Your task to perform on an android device: turn off location history Image 0: 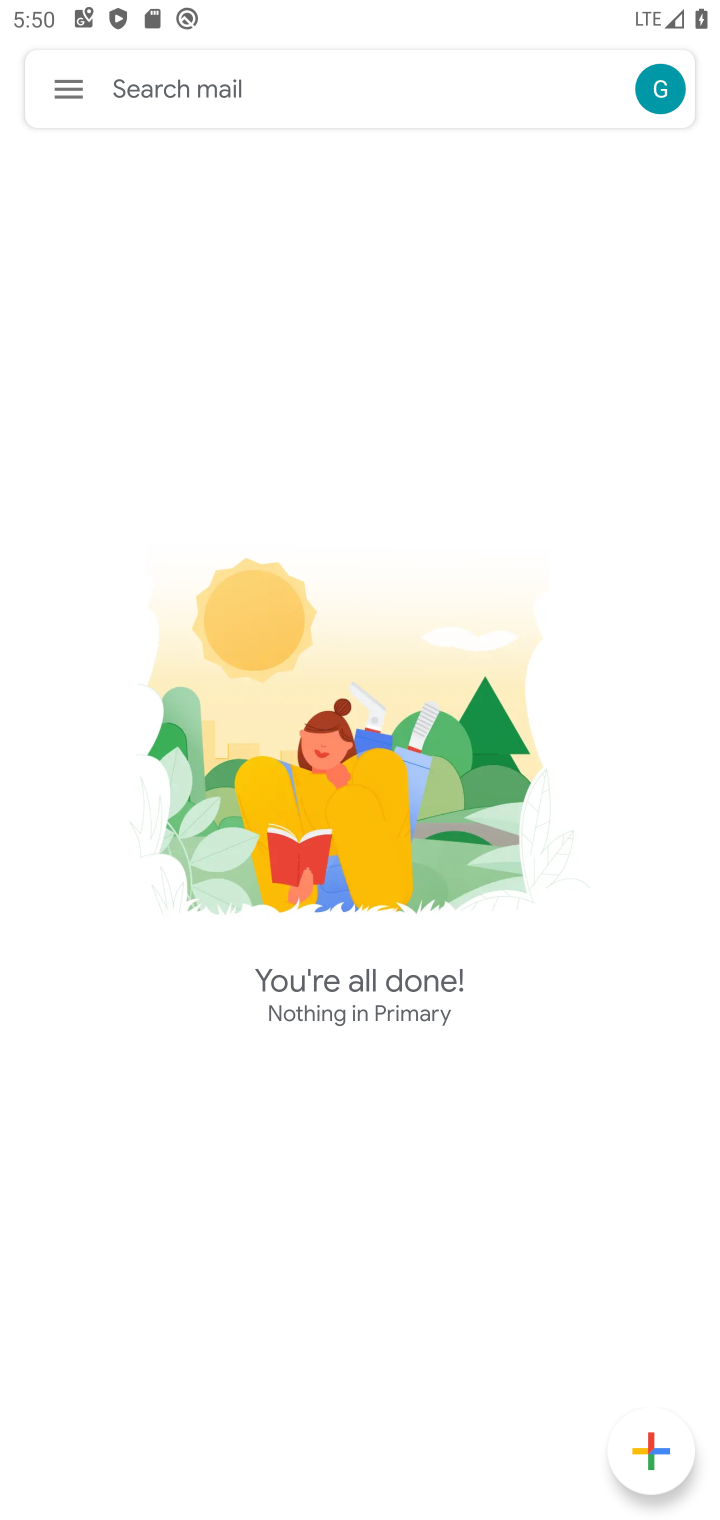
Step 0: press back button
Your task to perform on an android device: turn off location history Image 1: 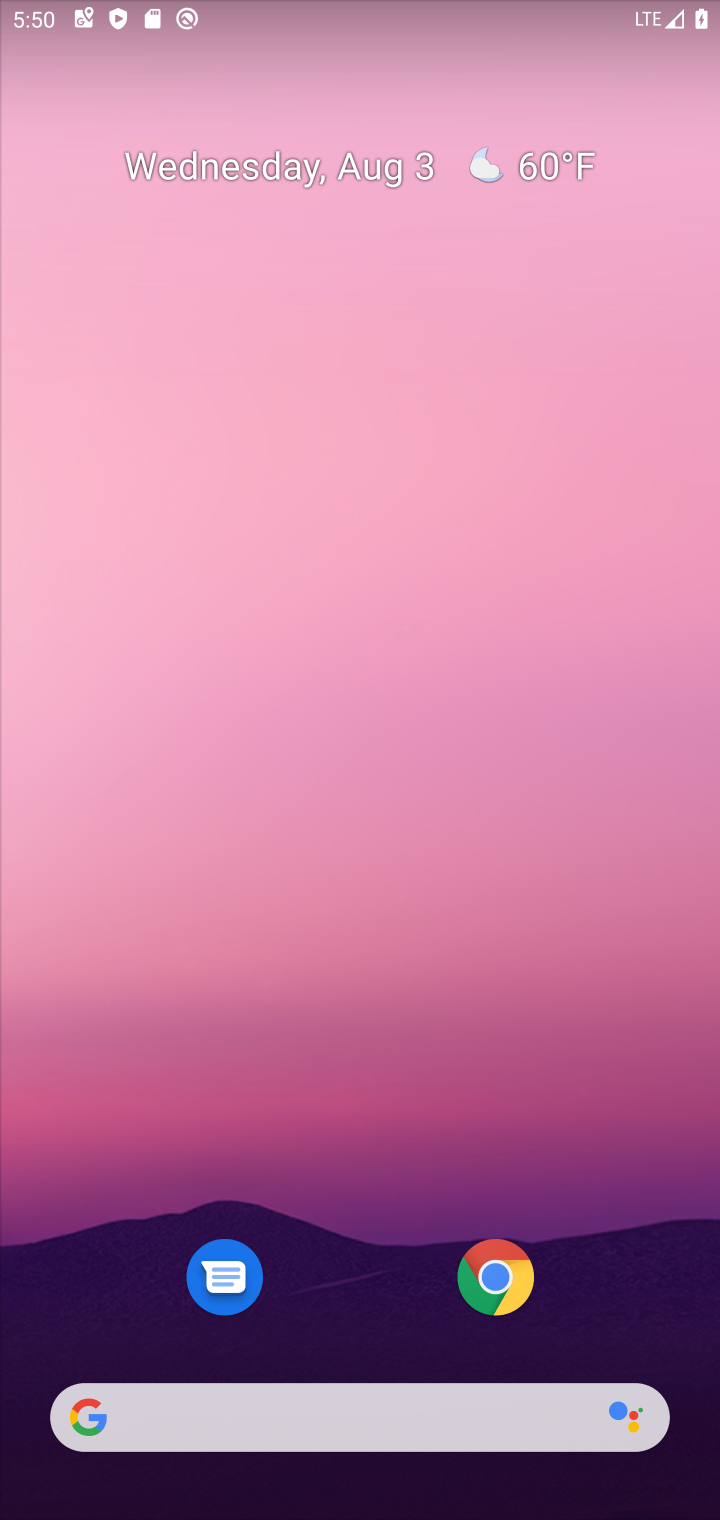
Step 1: drag from (400, 1049) to (490, 86)
Your task to perform on an android device: turn off location history Image 2: 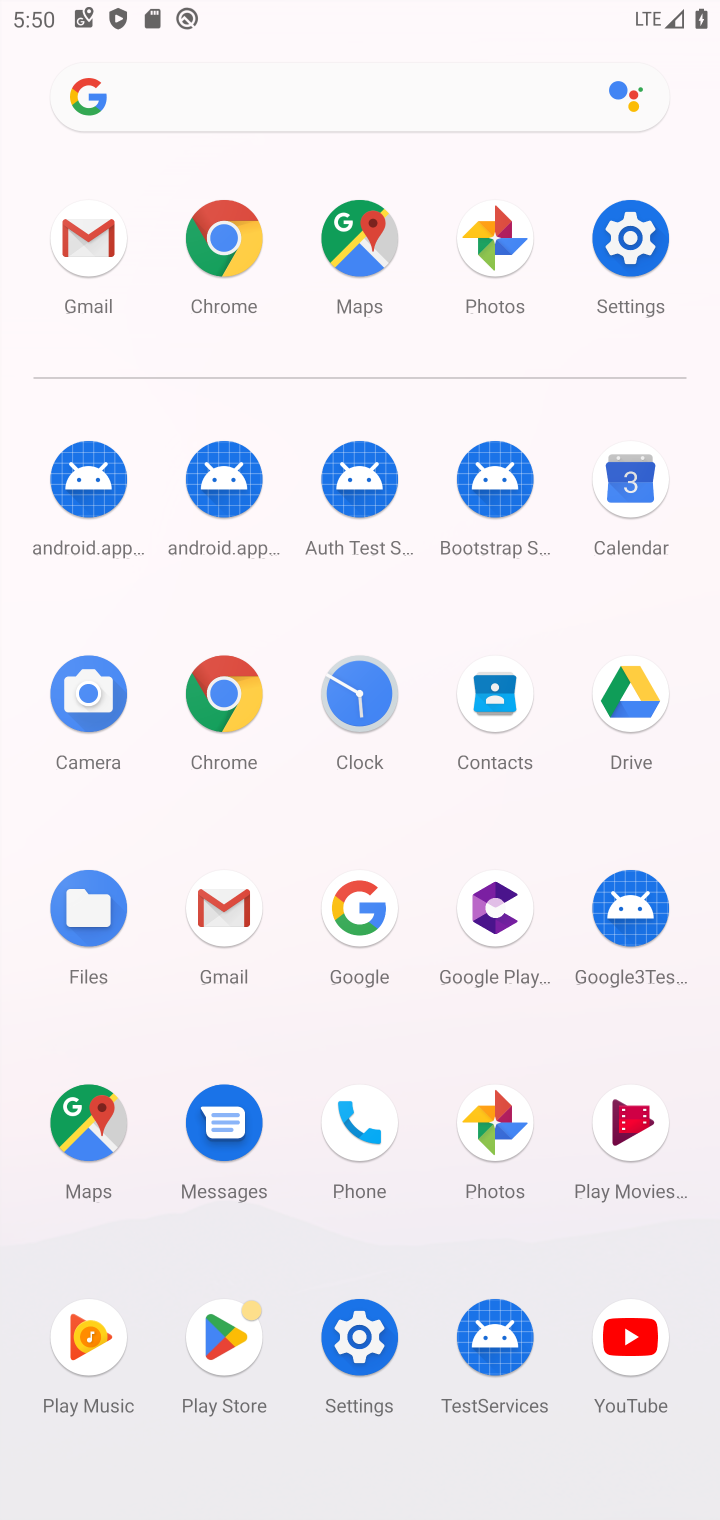
Step 2: click (621, 228)
Your task to perform on an android device: turn off location history Image 3: 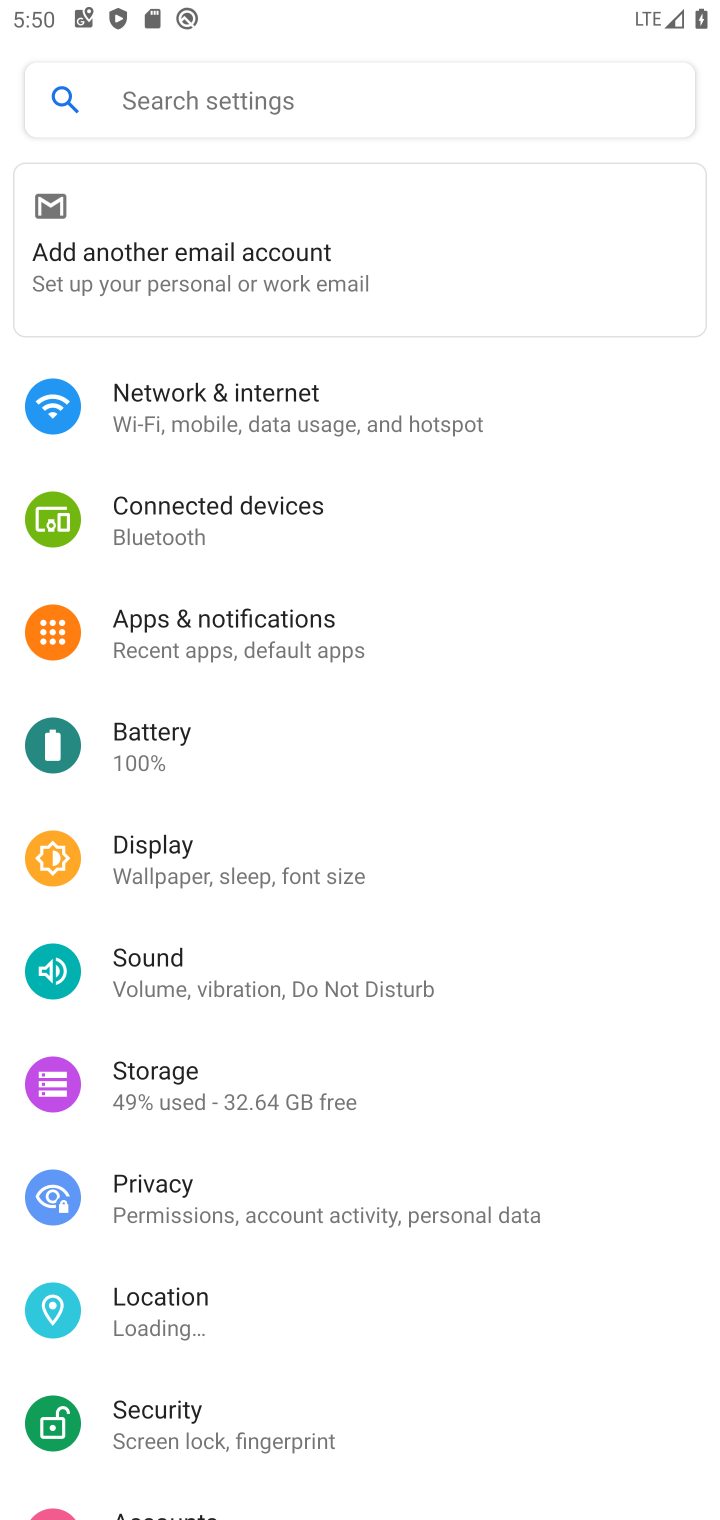
Step 3: click (154, 1311)
Your task to perform on an android device: turn off location history Image 4: 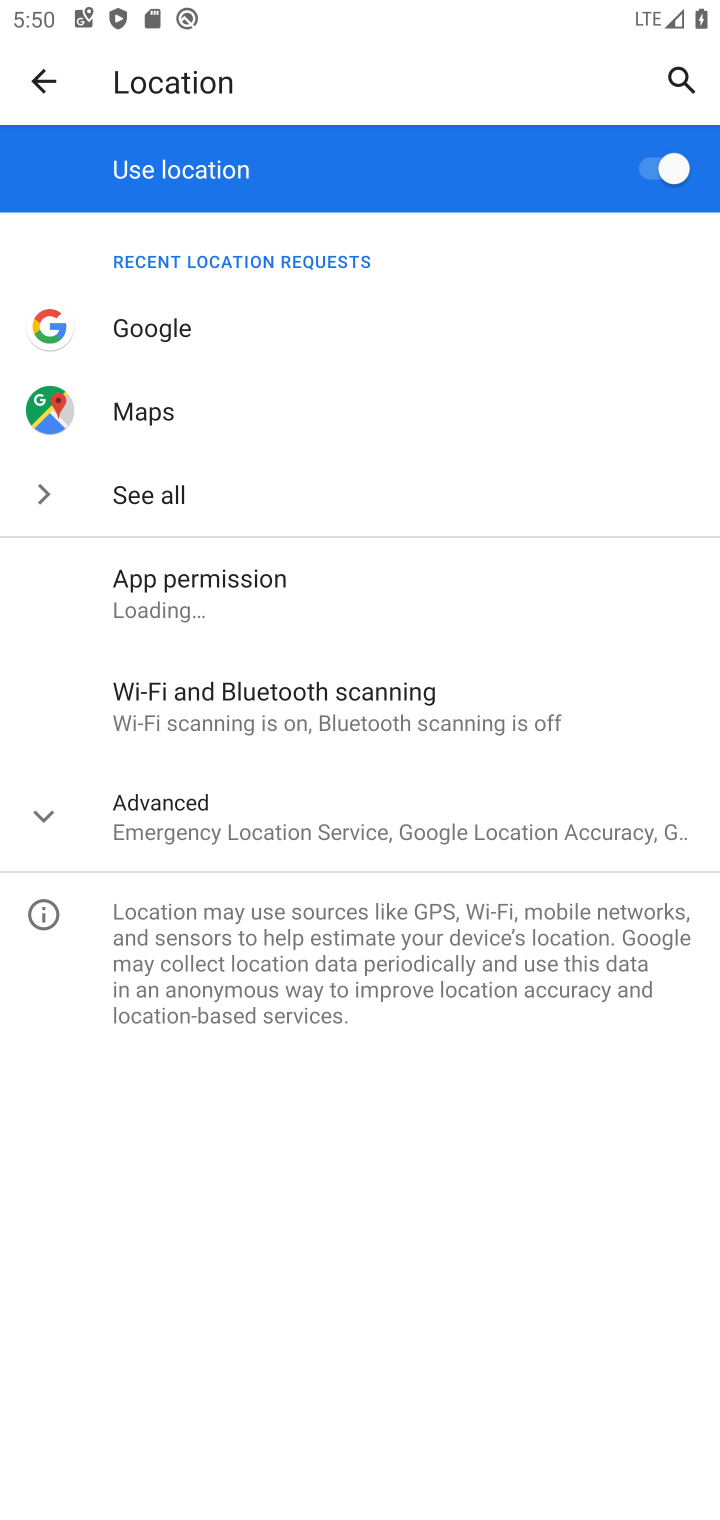
Step 4: click (299, 812)
Your task to perform on an android device: turn off location history Image 5: 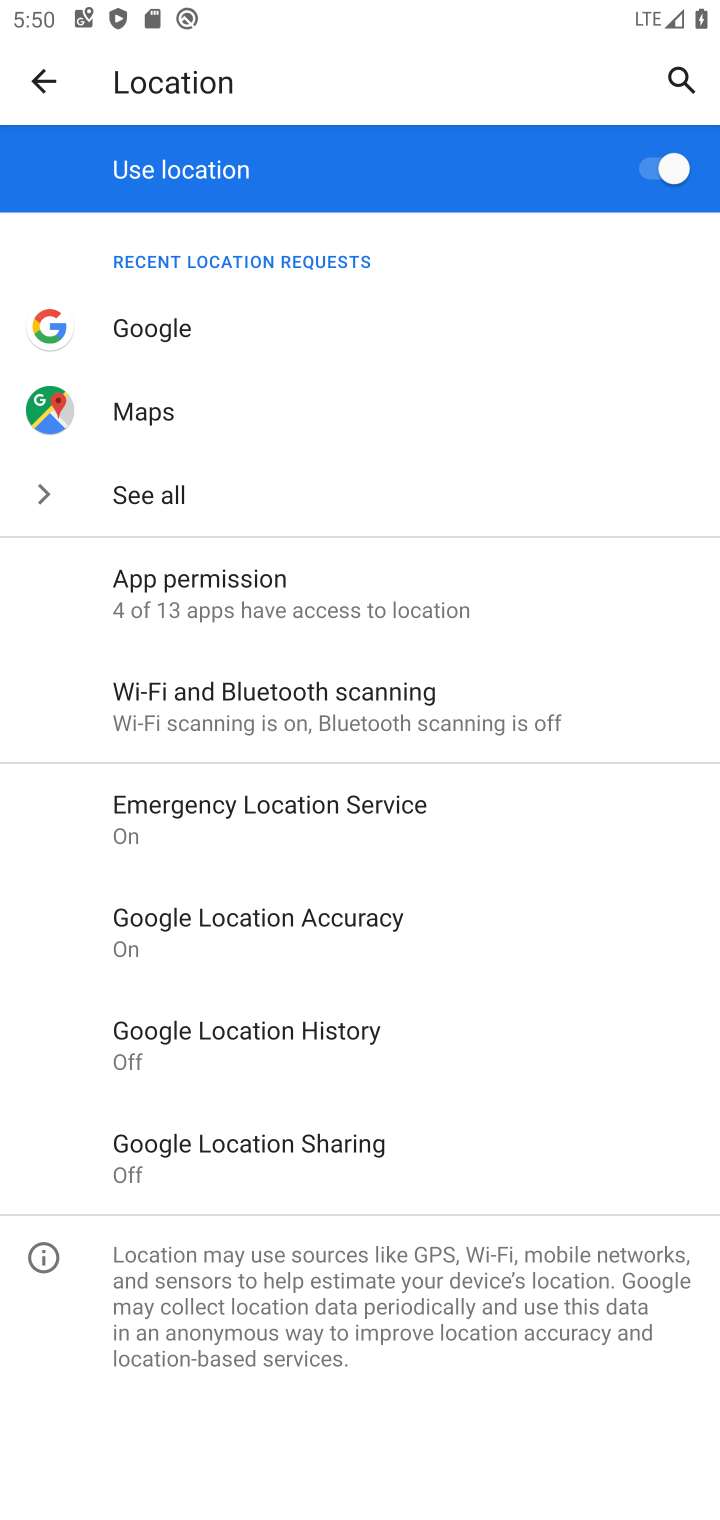
Step 5: click (249, 1028)
Your task to perform on an android device: turn off location history Image 6: 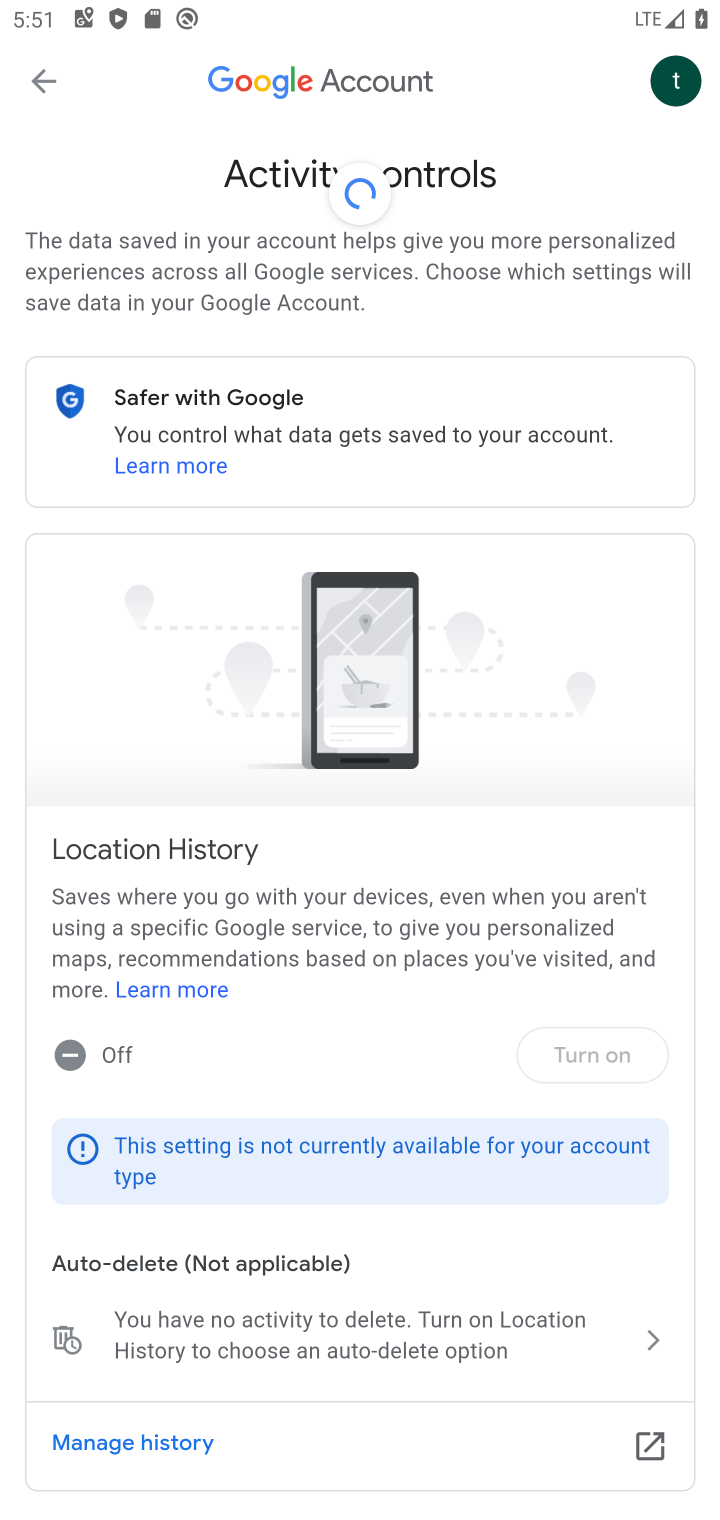
Step 6: task complete